Your task to perform on an android device: Go to privacy settings Image 0: 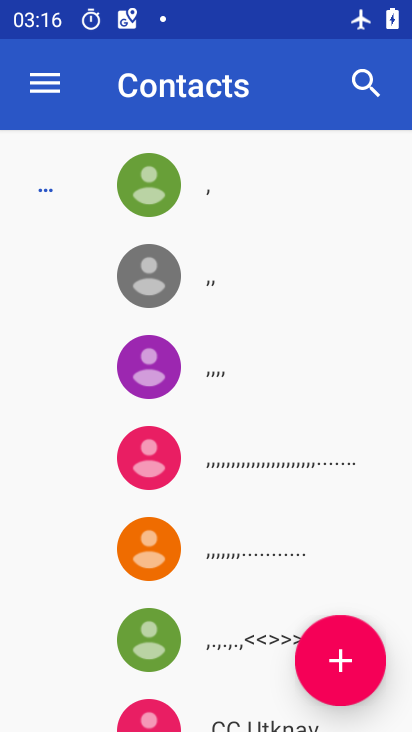
Step 0: press home button
Your task to perform on an android device: Go to privacy settings Image 1: 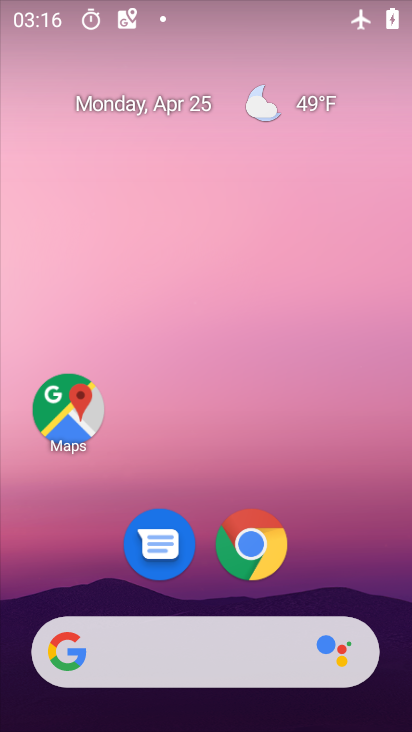
Step 1: drag from (301, 496) to (272, 0)
Your task to perform on an android device: Go to privacy settings Image 2: 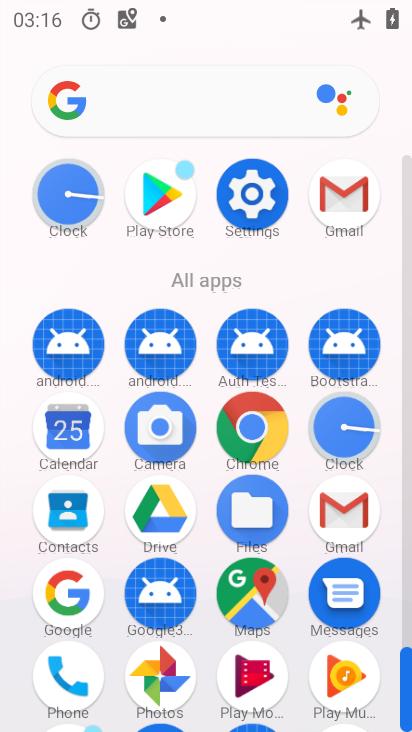
Step 2: click (252, 191)
Your task to perform on an android device: Go to privacy settings Image 3: 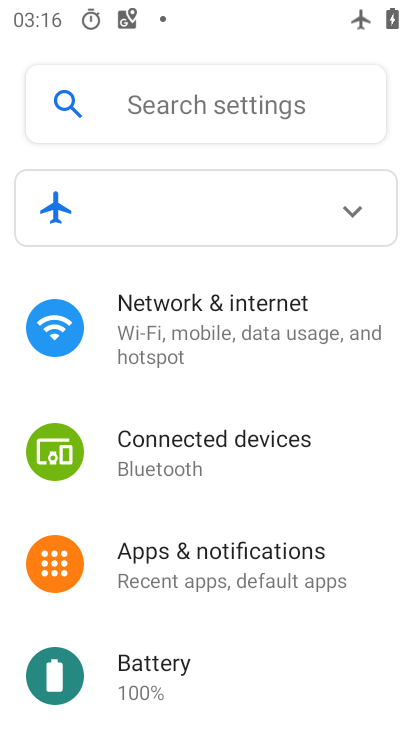
Step 3: drag from (212, 495) to (244, 336)
Your task to perform on an android device: Go to privacy settings Image 4: 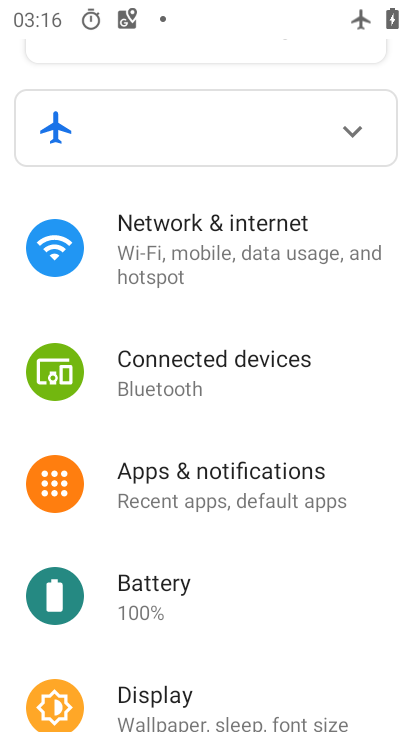
Step 4: drag from (212, 526) to (229, 411)
Your task to perform on an android device: Go to privacy settings Image 5: 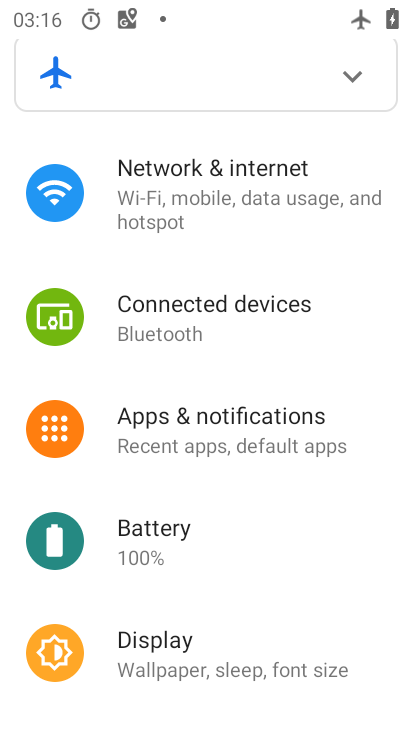
Step 5: drag from (225, 529) to (248, 440)
Your task to perform on an android device: Go to privacy settings Image 6: 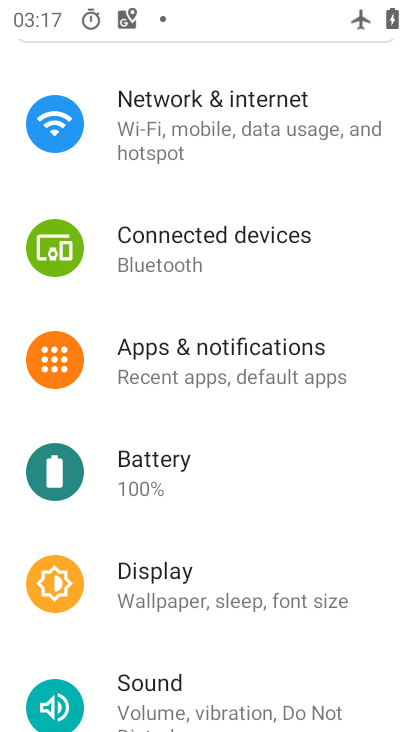
Step 6: drag from (219, 525) to (250, 395)
Your task to perform on an android device: Go to privacy settings Image 7: 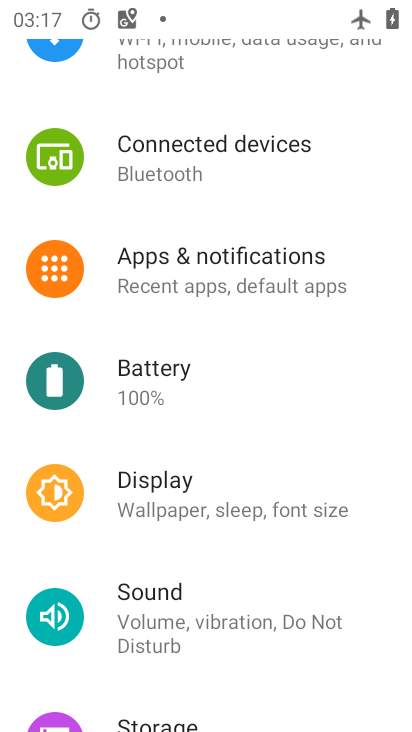
Step 7: drag from (231, 537) to (261, 433)
Your task to perform on an android device: Go to privacy settings Image 8: 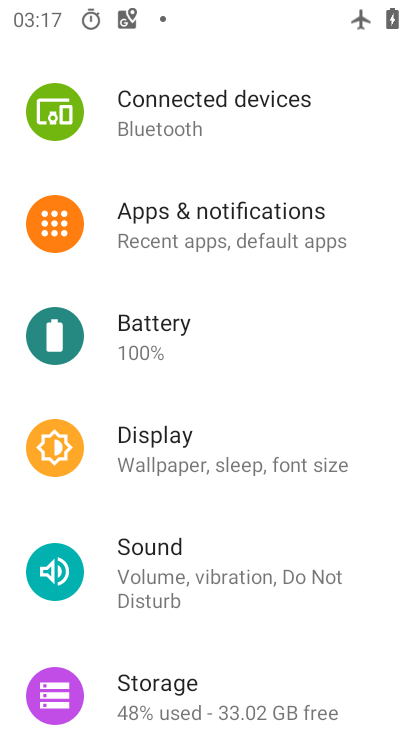
Step 8: drag from (208, 522) to (248, 406)
Your task to perform on an android device: Go to privacy settings Image 9: 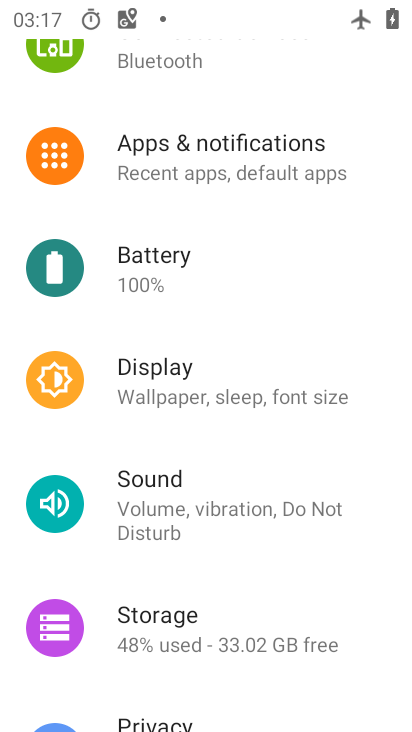
Step 9: drag from (225, 535) to (256, 446)
Your task to perform on an android device: Go to privacy settings Image 10: 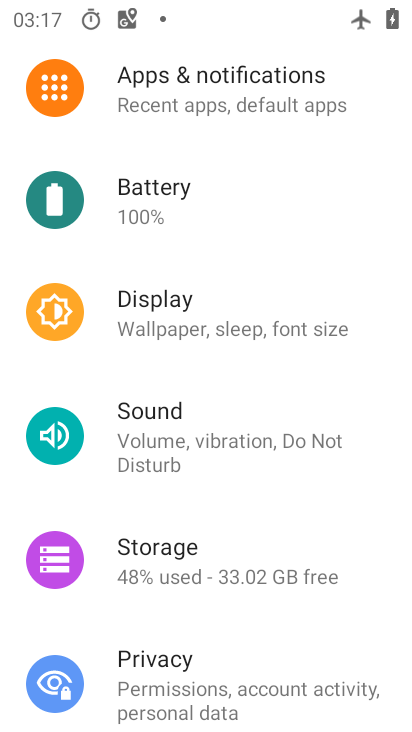
Step 10: drag from (228, 517) to (258, 438)
Your task to perform on an android device: Go to privacy settings Image 11: 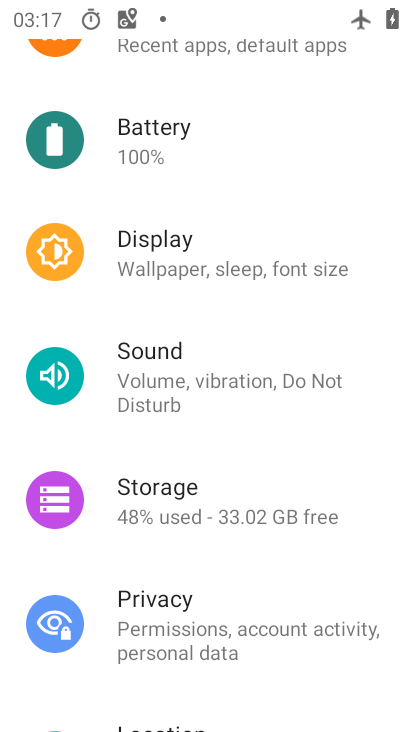
Step 11: click (170, 603)
Your task to perform on an android device: Go to privacy settings Image 12: 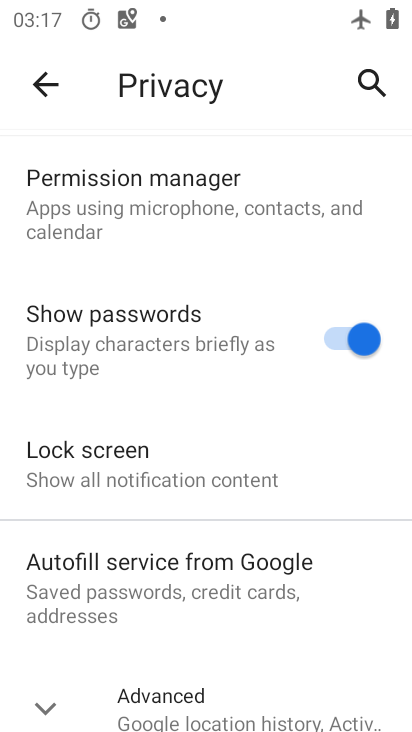
Step 12: task complete